Your task to perform on an android device: turn off wifi Image 0: 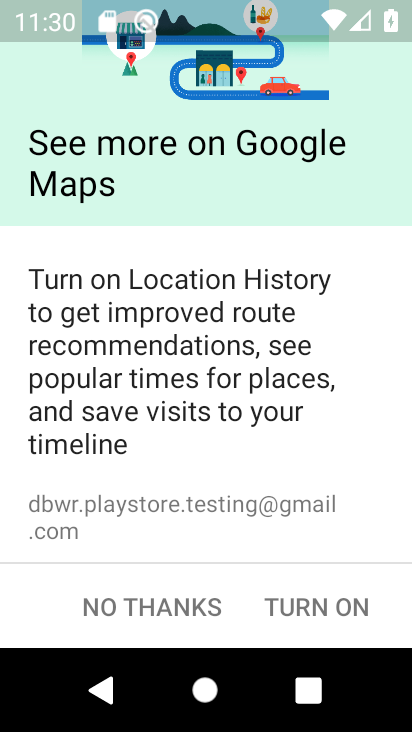
Step 0: press back button
Your task to perform on an android device: turn off wifi Image 1: 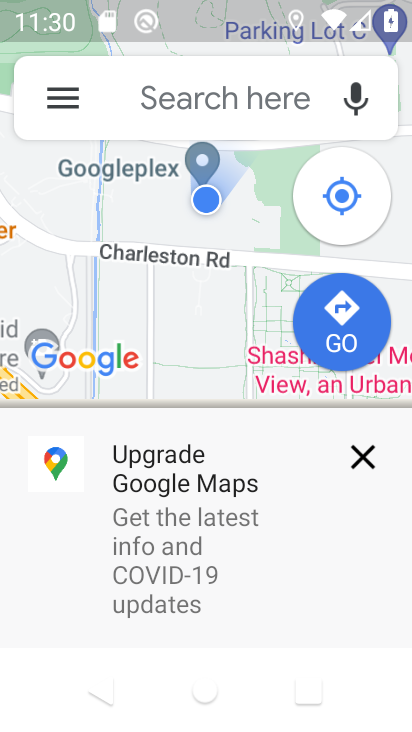
Step 1: press back button
Your task to perform on an android device: turn off wifi Image 2: 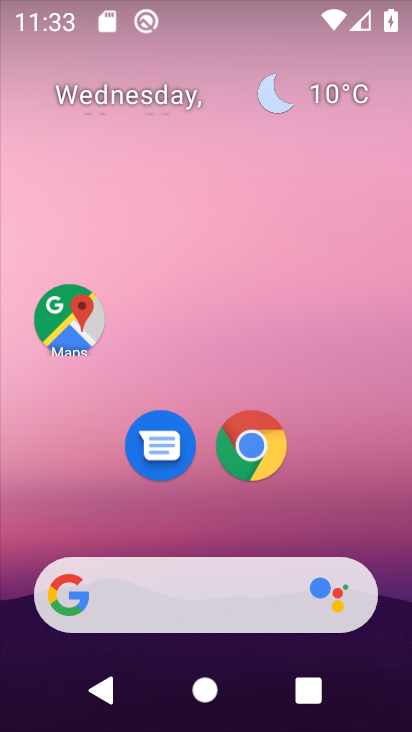
Step 2: drag from (198, 223) to (231, 638)
Your task to perform on an android device: turn off wifi Image 3: 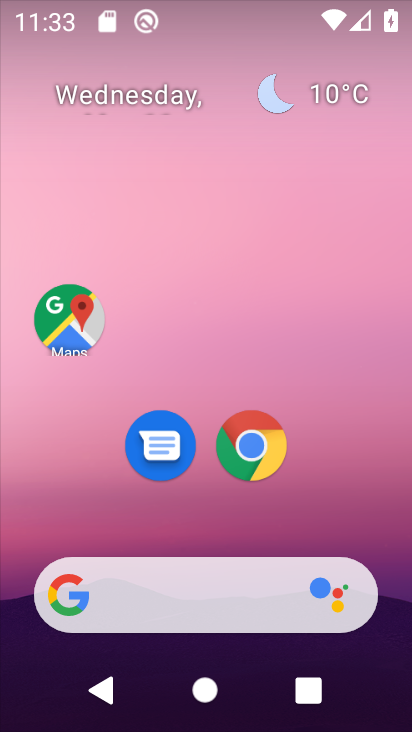
Step 3: drag from (84, 15) to (172, 621)
Your task to perform on an android device: turn off wifi Image 4: 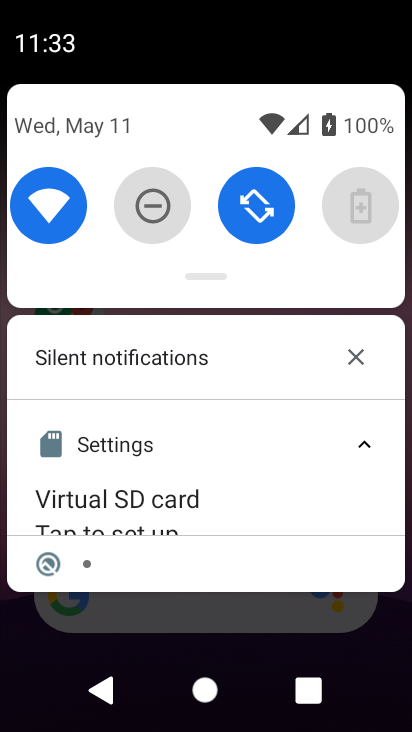
Step 4: click (52, 205)
Your task to perform on an android device: turn off wifi Image 5: 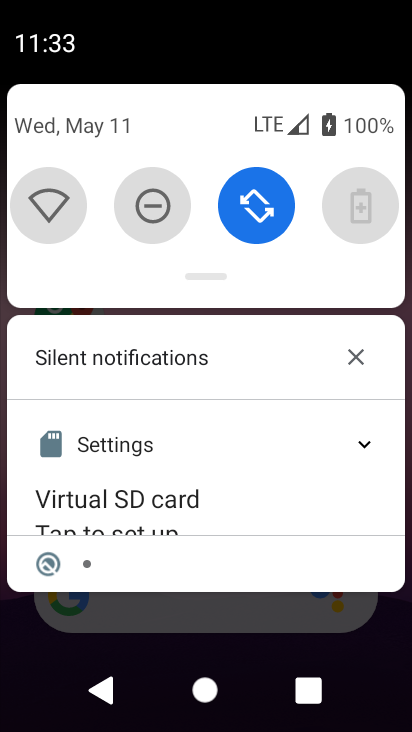
Step 5: task complete